Your task to perform on an android device: Open calendar and show me the second week of next month Image 0: 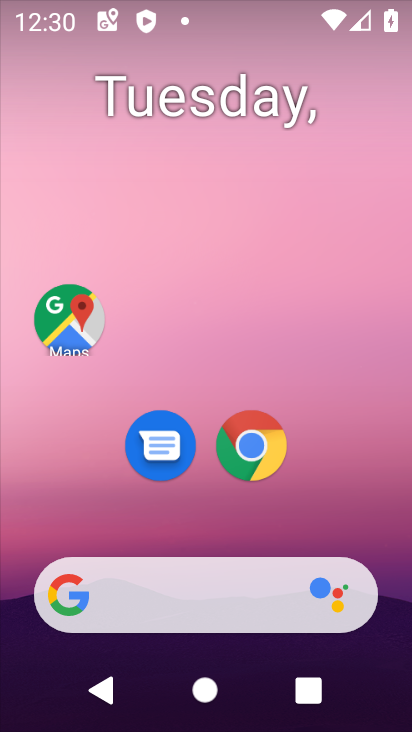
Step 0: drag from (313, 530) to (402, 10)
Your task to perform on an android device: Open calendar and show me the second week of next month Image 1: 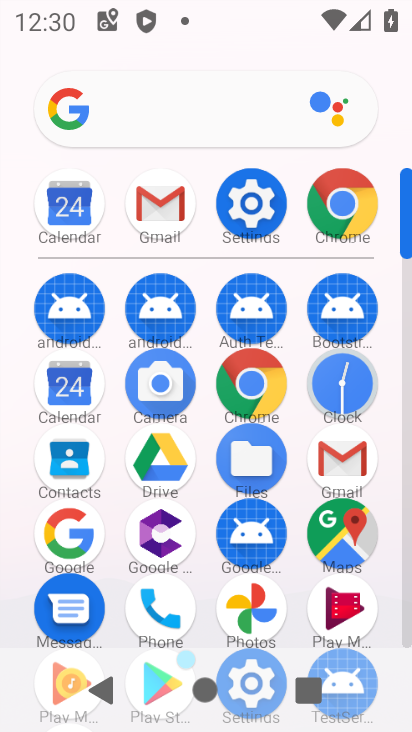
Step 1: click (58, 390)
Your task to perform on an android device: Open calendar and show me the second week of next month Image 2: 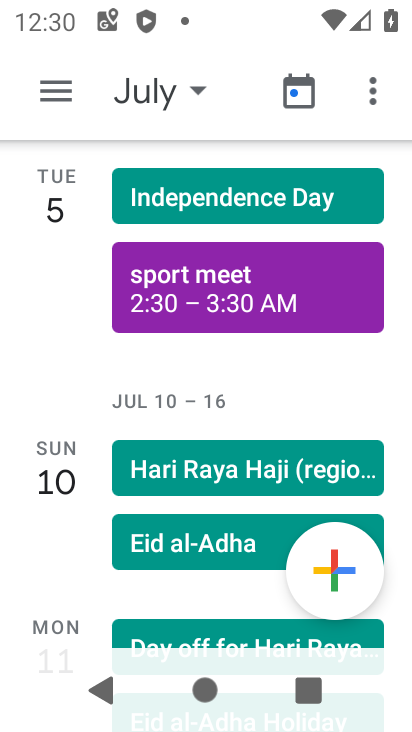
Step 2: click (200, 80)
Your task to perform on an android device: Open calendar and show me the second week of next month Image 3: 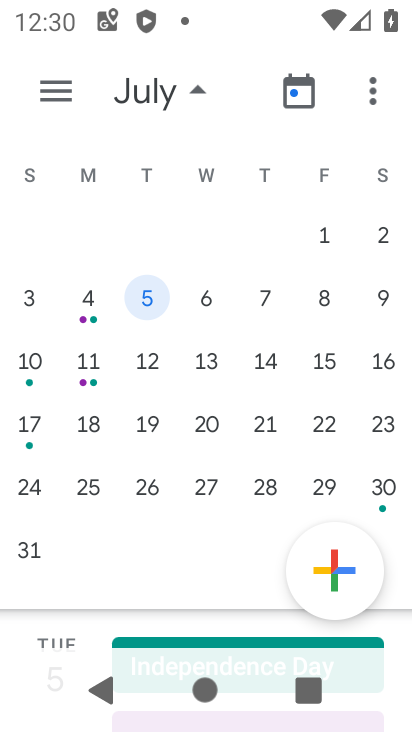
Step 3: drag from (333, 425) to (3, 463)
Your task to perform on an android device: Open calendar and show me the second week of next month Image 4: 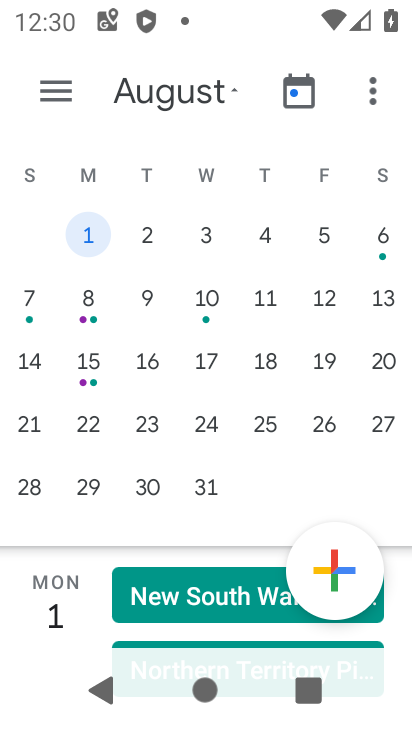
Step 4: click (41, 373)
Your task to perform on an android device: Open calendar and show me the second week of next month Image 5: 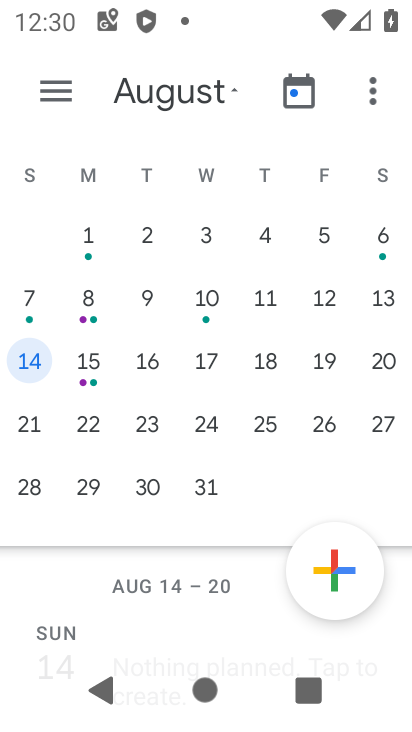
Step 5: task complete